Your task to perform on an android device: Show me productivity apps on the Play Store Image 0: 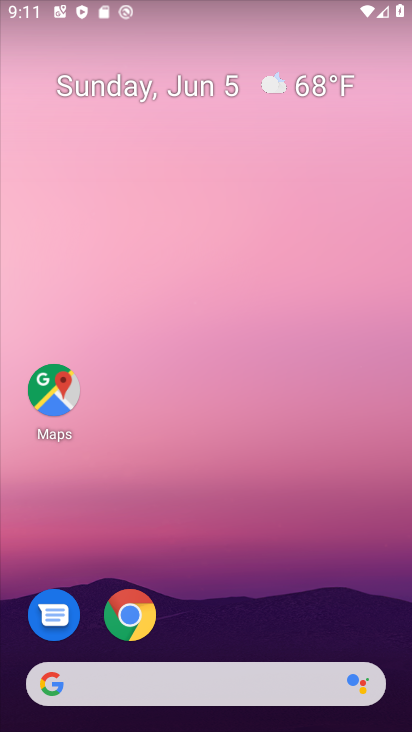
Step 0: drag from (235, 679) to (400, 193)
Your task to perform on an android device: Show me productivity apps on the Play Store Image 1: 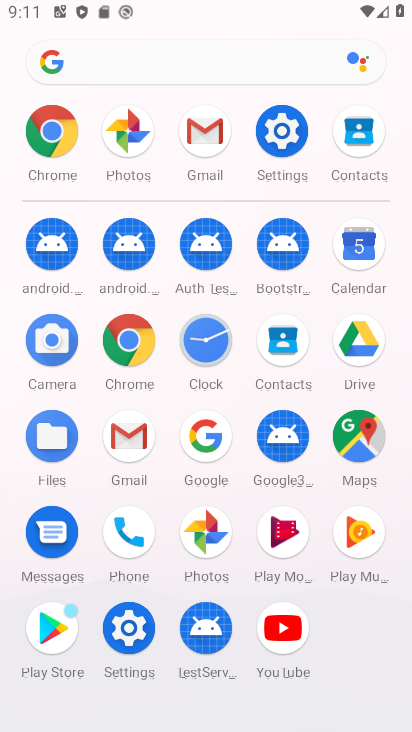
Step 1: click (40, 615)
Your task to perform on an android device: Show me productivity apps on the Play Store Image 2: 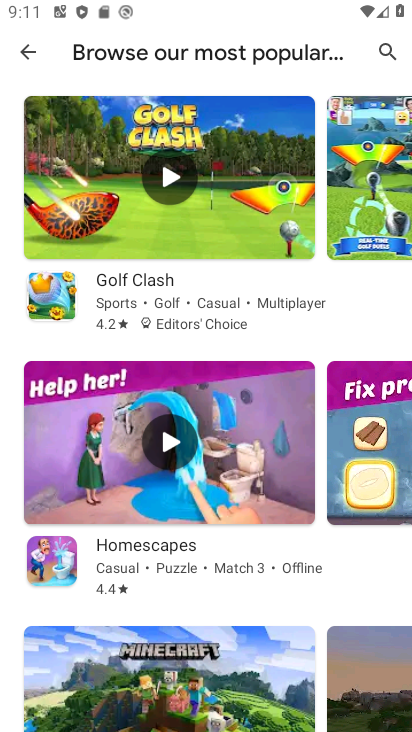
Step 2: click (35, 51)
Your task to perform on an android device: Show me productivity apps on the Play Store Image 3: 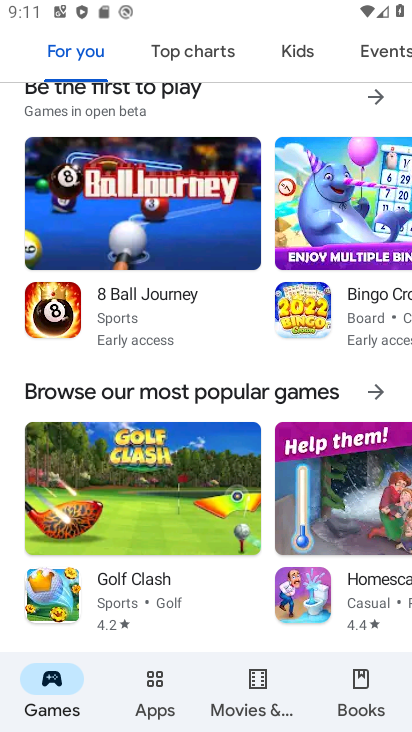
Step 3: click (156, 690)
Your task to perform on an android device: Show me productivity apps on the Play Store Image 4: 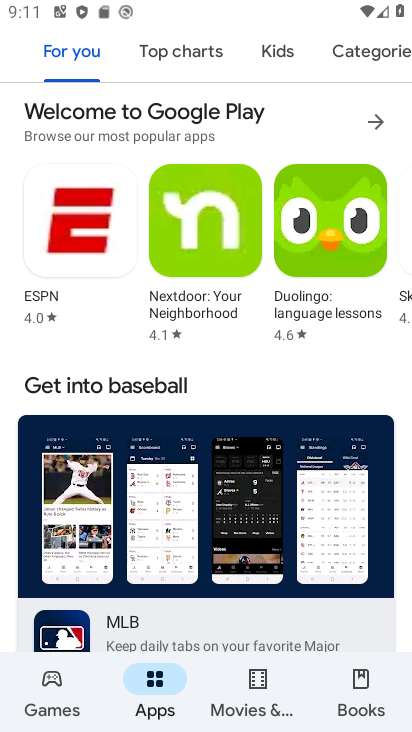
Step 4: click (348, 48)
Your task to perform on an android device: Show me productivity apps on the Play Store Image 5: 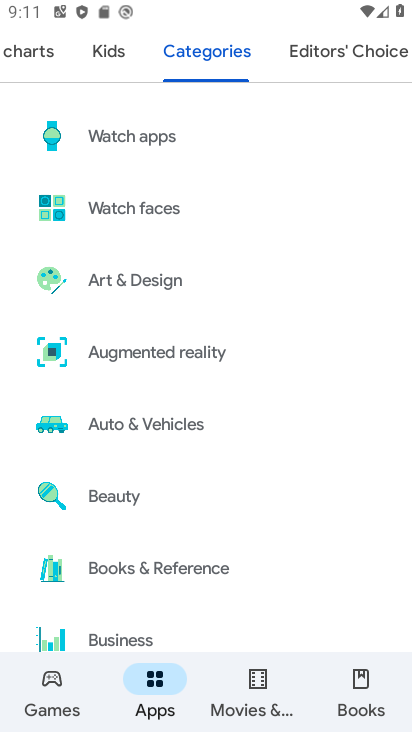
Step 5: drag from (138, 607) to (246, 0)
Your task to perform on an android device: Show me productivity apps on the Play Store Image 6: 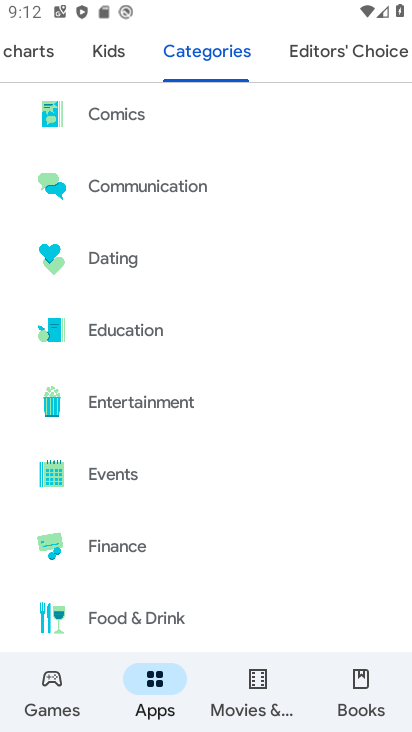
Step 6: drag from (171, 610) to (222, 281)
Your task to perform on an android device: Show me productivity apps on the Play Store Image 7: 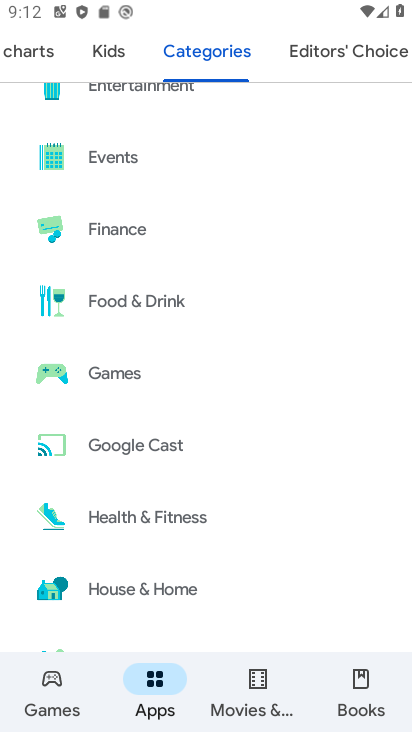
Step 7: drag from (190, 595) to (237, 282)
Your task to perform on an android device: Show me productivity apps on the Play Store Image 8: 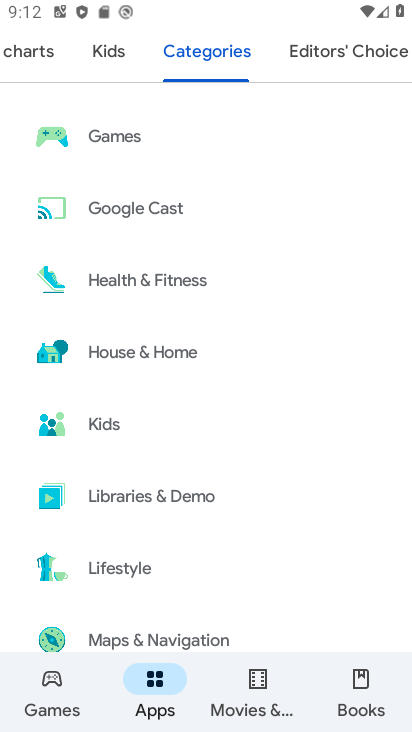
Step 8: drag from (183, 554) to (189, 61)
Your task to perform on an android device: Show me productivity apps on the Play Store Image 9: 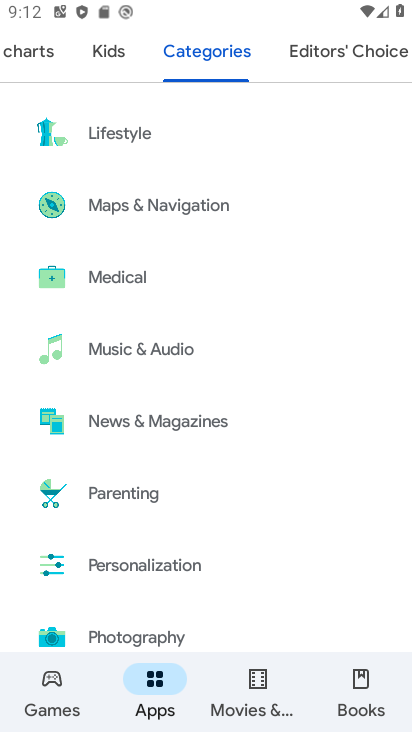
Step 9: drag from (185, 560) to (212, 102)
Your task to perform on an android device: Show me productivity apps on the Play Store Image 10: 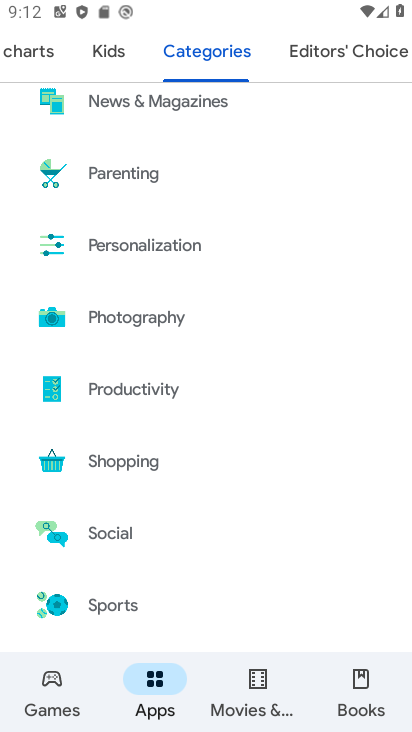
Step 10: click (119, 380)
Your task to perform on an android device: Show me productivity apps on the Play Store Image 11: 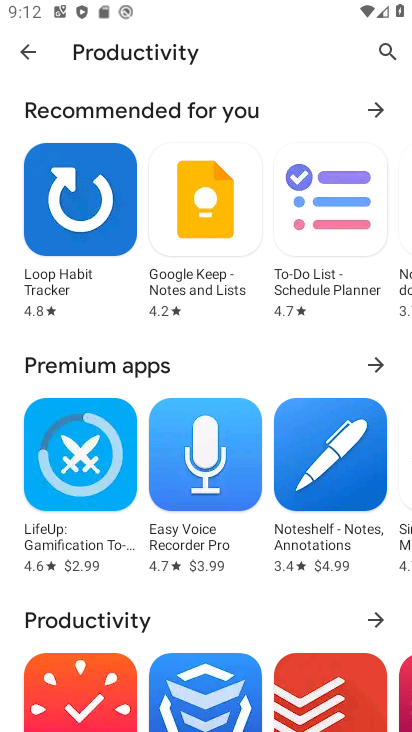
Step 11: task complete